Your task to perform on an android device: check google app version Image 0: 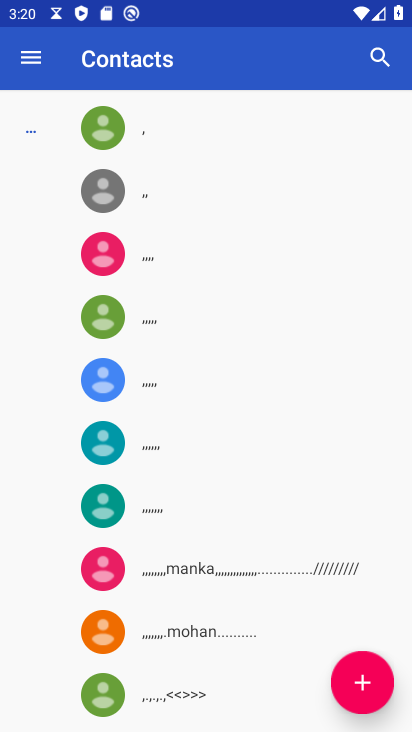
Step 0: press home button
Your task to perform on an android device: check google app version Image 1: 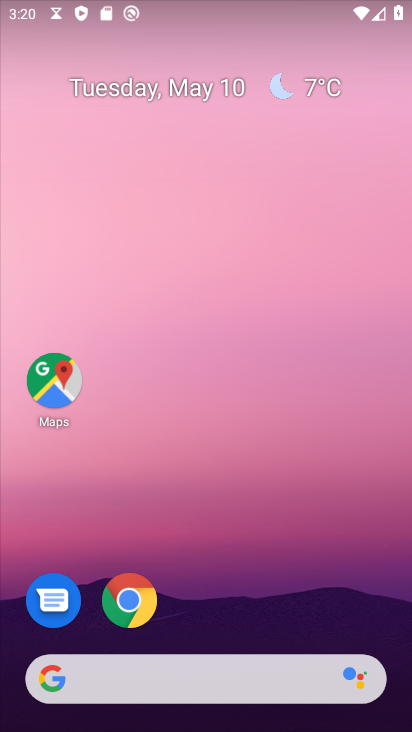
Step 1: drag from (228, 596) to (273, 228)
Your task to perform on an android device: check google app version Image 2: 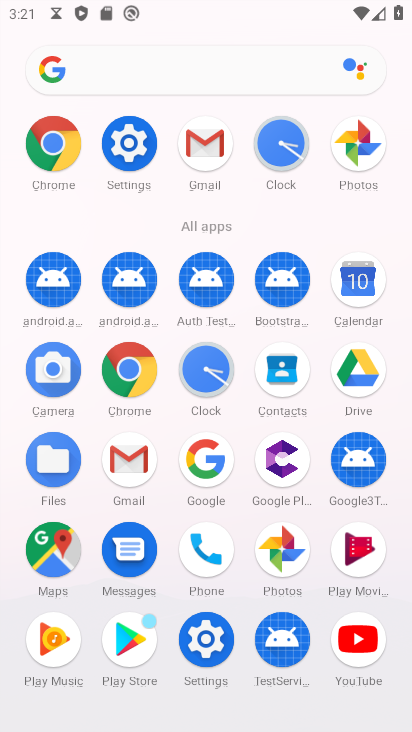
Step 2: click (201, 463)
Your task to perform on an android device: check google app version Image 3: 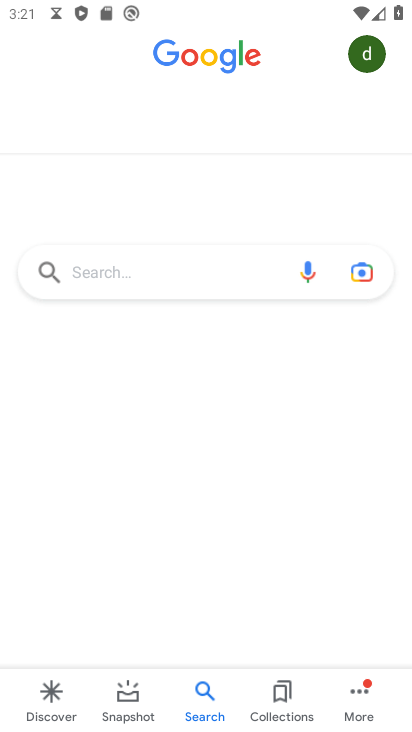
Step 3: click (366, 692)
Your task to perform on an android device: check google app version Image 4: 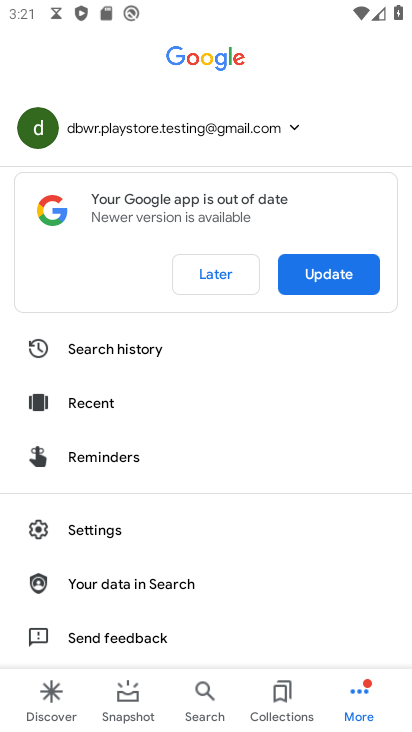
Step 4: click (101, 523)
Your task to perform on an android device: check google app version Image 5: 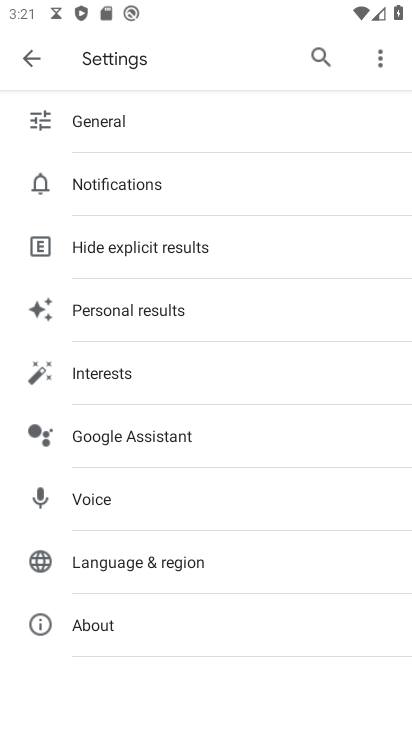
Step 5: drag from (188, 612) to (138, 357)
Your task to perform on an android device: check google app version Image 6: 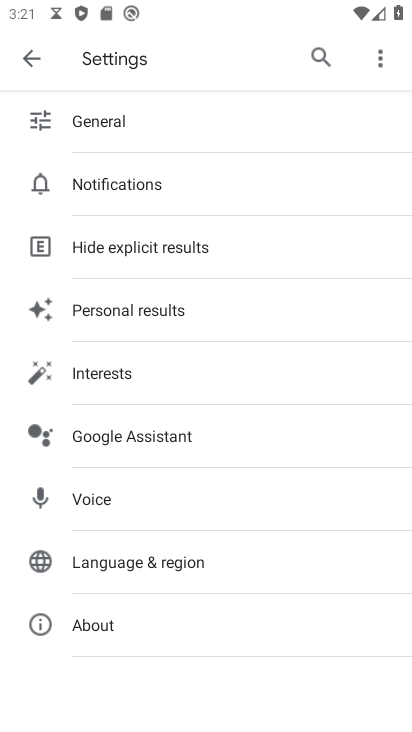
Step 6: drag from (141, 238) to (156, 490)
Your task to perform on an android device: check google app version Image 7: 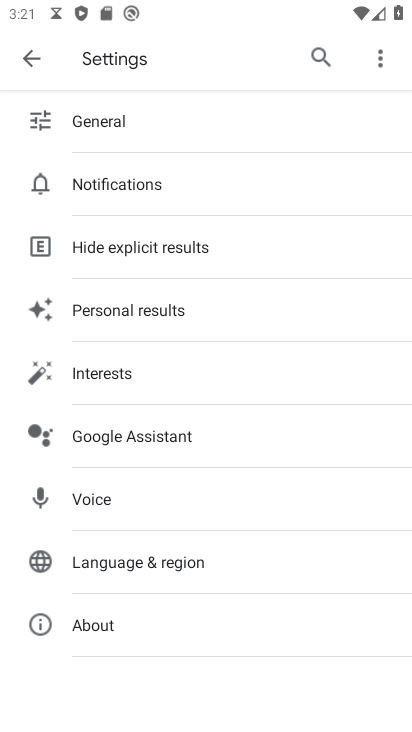
Step 7: press back button
Your task to perform on an android device: check google app version Image 8: 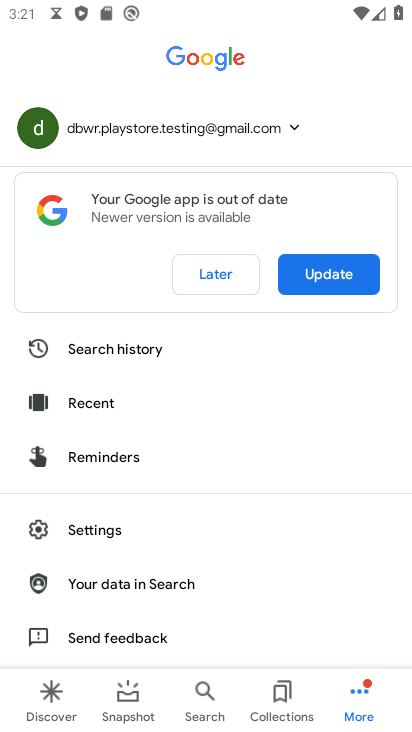
Step 8: click (50, 706)
Your task to perform on an android device: check google app version Image 9: 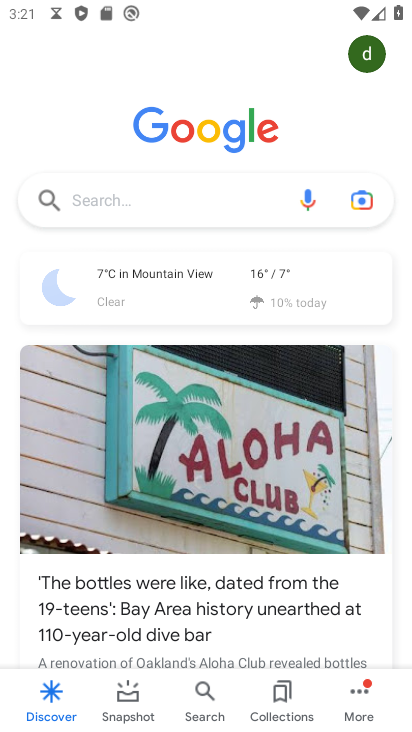
Step 9: click (355, 680)
Your task to perform on an android device: check google app version Image 10: 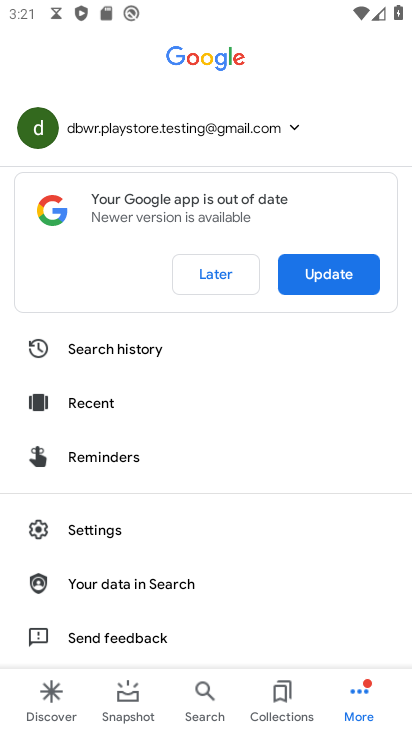
Step 10: drag from (189, 601) to (164, 381)
Your task to perform on an android device: check google app version Image 11: 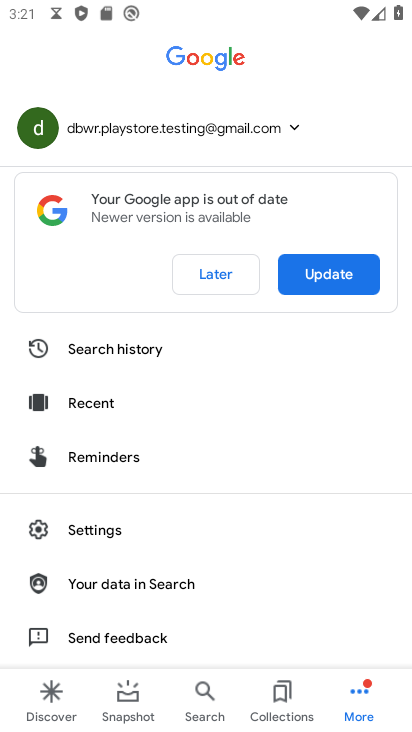
Step 11: drag from (192, 527) to (188, 340)
Your task to perform on an android device: check google app version Image 12: 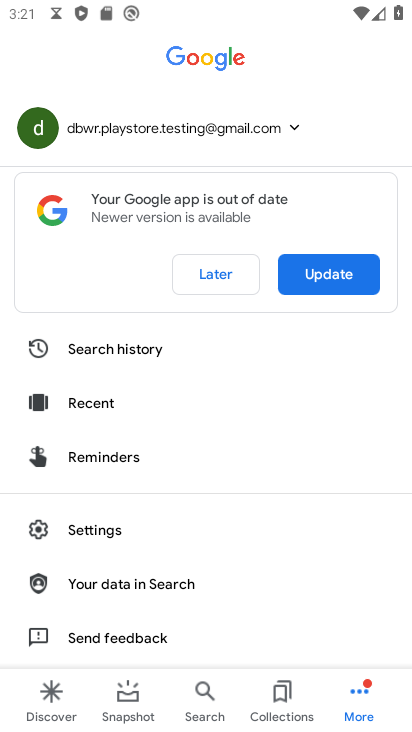
Step 12: click (99, 506)
Your task to perform on an android device: check google app version Image 13: 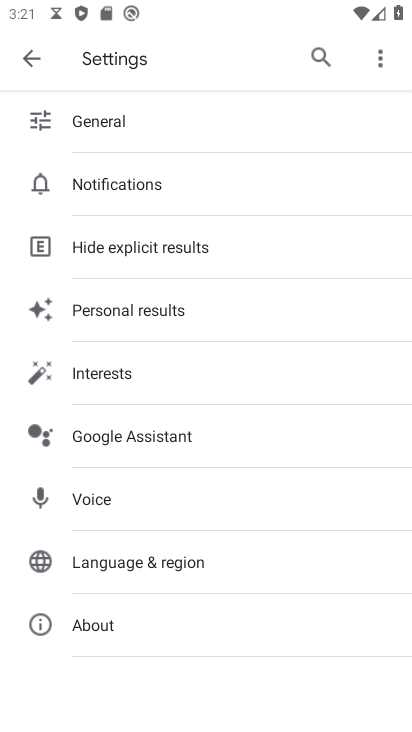
Step 13: click (143, 620)
Your task to perform on an android device: check google app version Image 14: 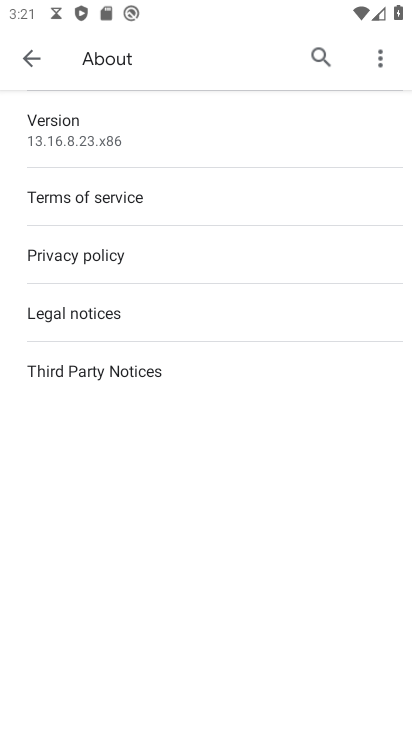
Step 14: click (108, 127)
Your task to perform on an android device: check google app version Image 15: 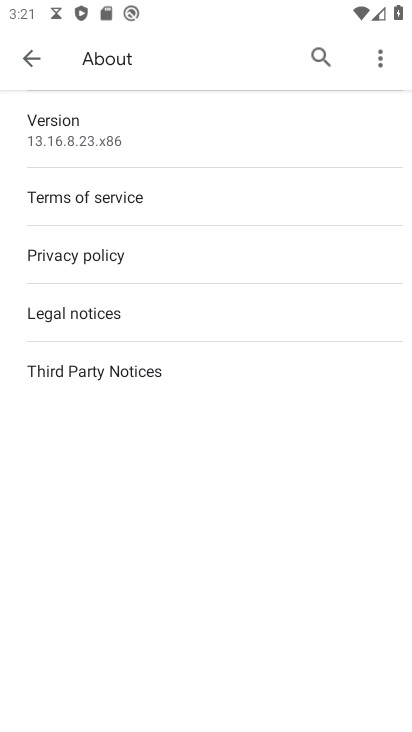
Step 15: click (195, 128)
Your task to perform on an android device: check google app version Image 16: 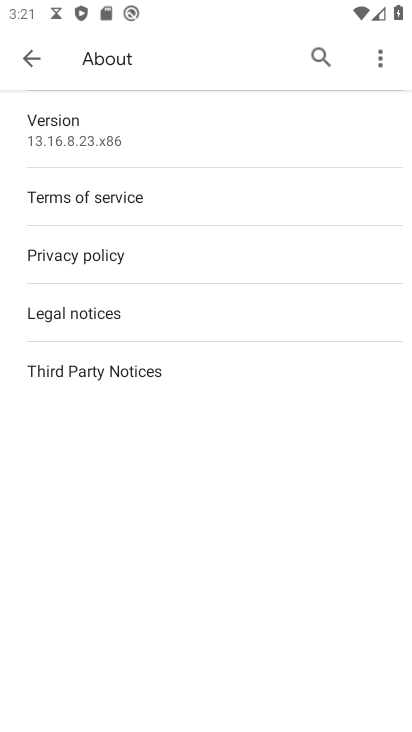
Step 16: drag from (73, 649) to (75, 396)
Your task to perform on an android device: check google app version Image 17: 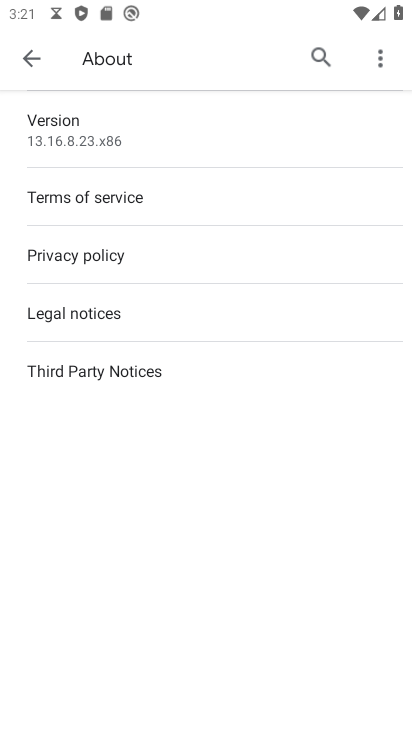
Step 17: click (94, 122)
Your task to perform on an android device: check google app version Image 18: 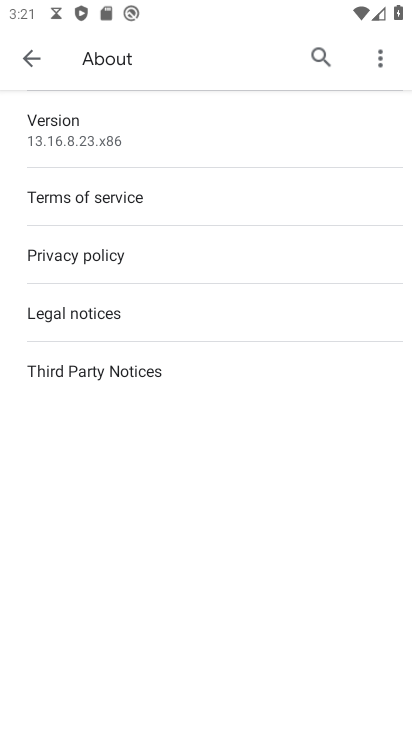
Step 18: click (84, 138)
Your task to perform on an android device: check google app version Image 19: 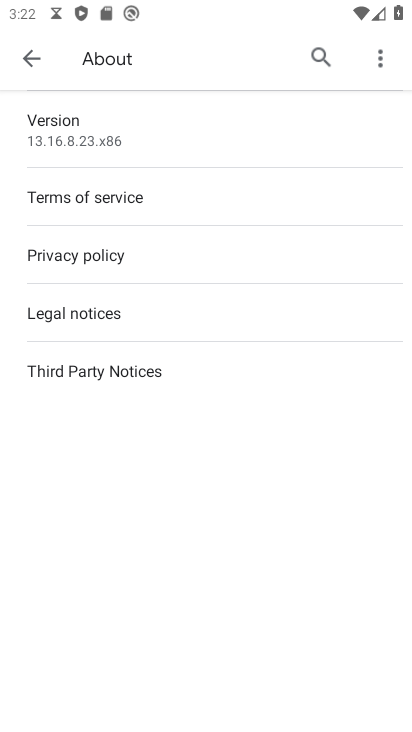
Step 19: task complete